Your task to perform on an android device: find snoozed emails in the gmail app Image 0: 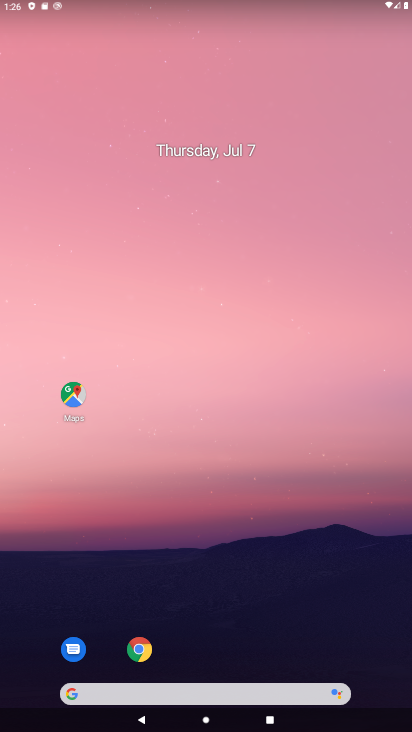
Step 0: drag from (381, 665) to (355, 105)
Your task to perform on an android device: find snoozed emails in the gmail app Image 1: 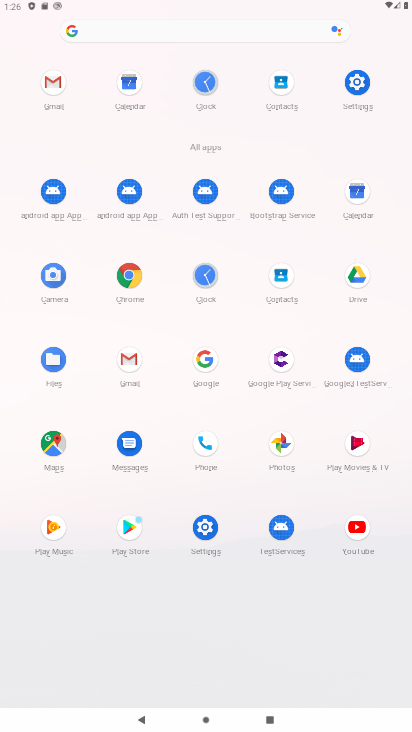
Step 1: click (127, 362)
Your task to perform on an android device: find snoozed emails in the gmail app Image 2: 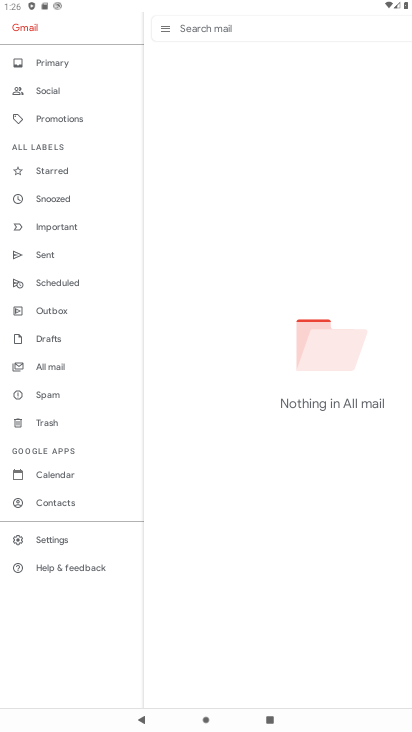
Step 2: click (50, 202)
Your task to perform on an android device: find snoozed emails in the gmail app Image 3: 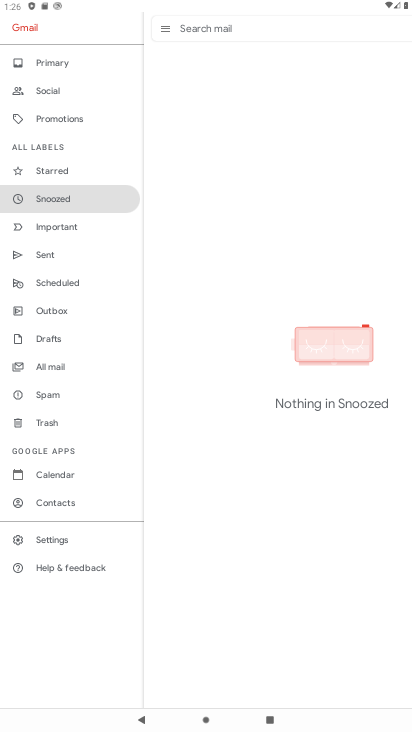
Step 3: task complete